Your task to perform on an android device: Open location settings Image 0: 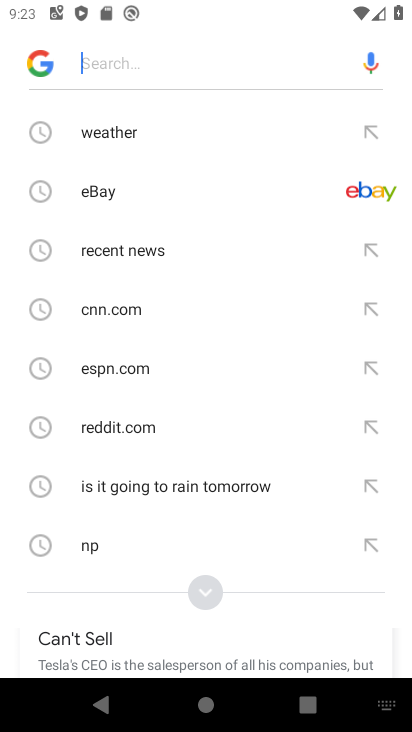
Step 0: press home button
Your task to perform on an android device: Open location settings Image 1: 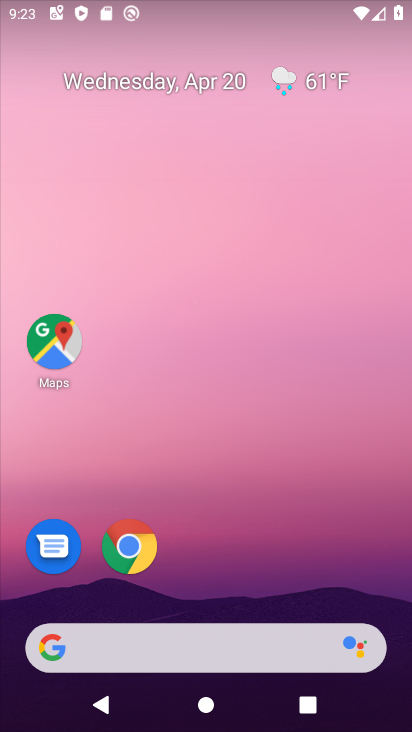
Step 1: drag from (206, 624) to (168, 366)
Your task to perform on an android device: Open location settings Image 2: 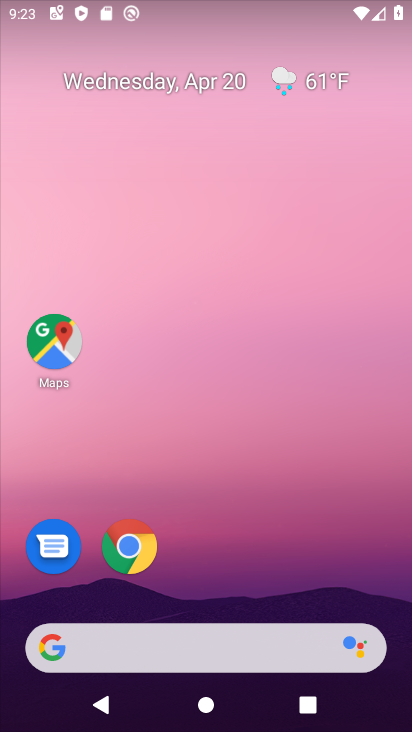
Step 2: drag from (196, 593) to (198, 240)
Your task to perform on an android device: Open location settings Image 3: 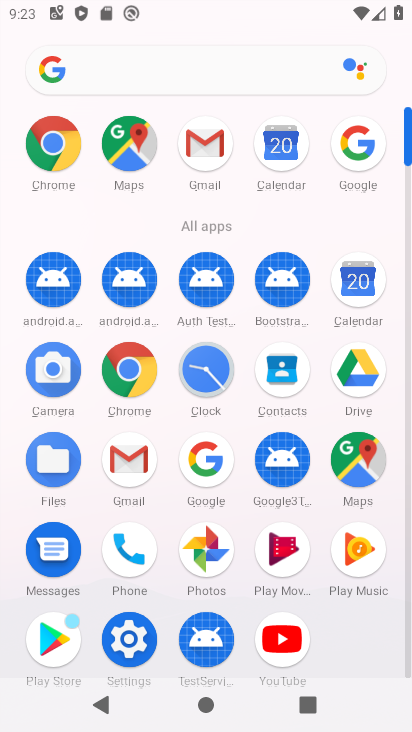
Step 3: click (119, 644)
Your task to perform on an android device: Open location settings Image 4: 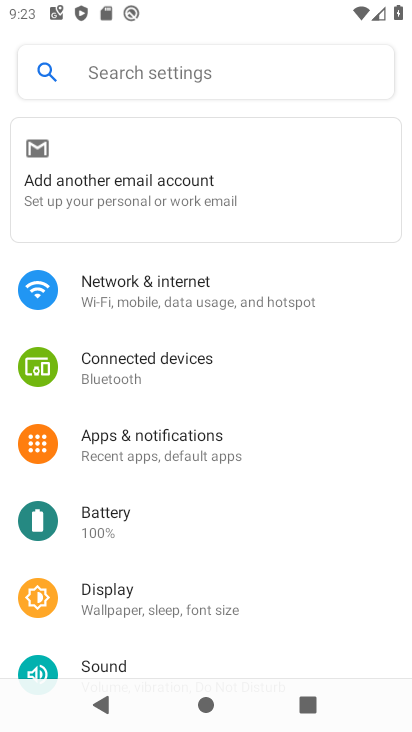
Step 4: drag from (161, 645) to (159, 345)
Your task to perform on an android device: Open location settings Image 5: 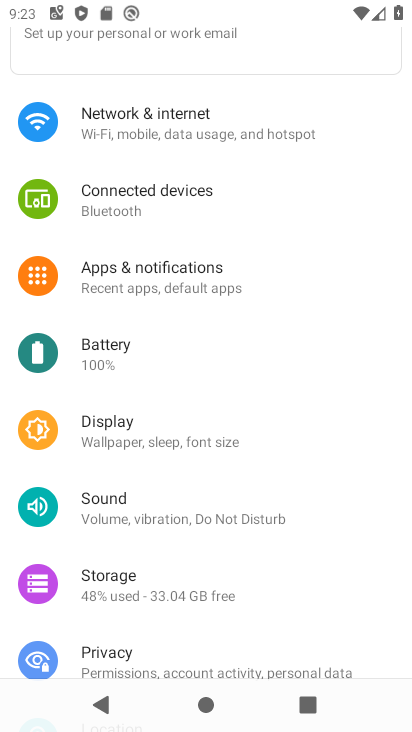
Step 5: drag from (125, 662) to (134, 317)
Your task to perform on an android device: Open location settings Image 6: 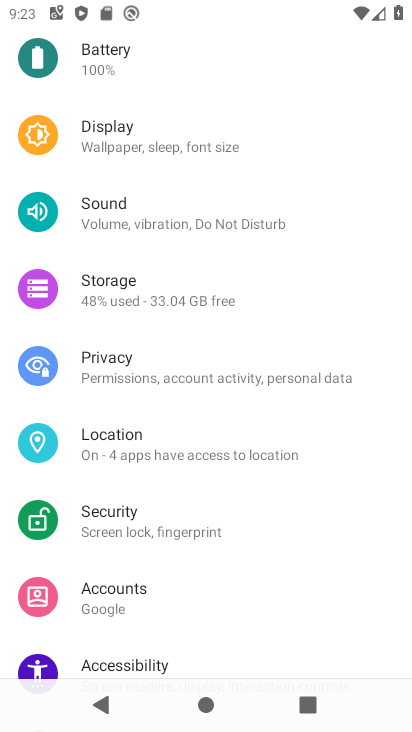
Step 6: click (133, 447)
Your task to perform on an android device: Open location settings Image 7: 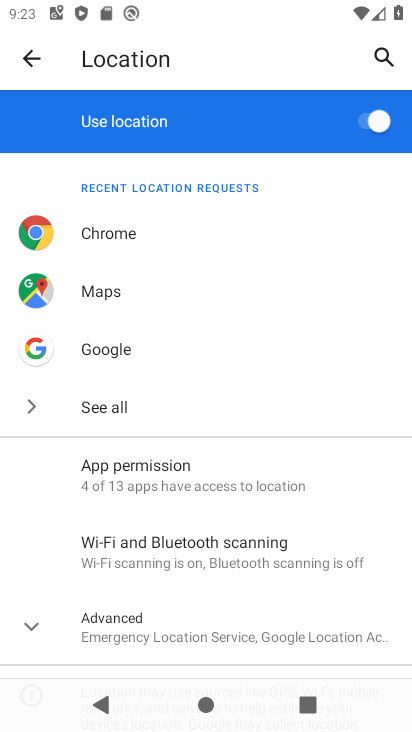
Step 7: click (126, 630)
Your task to perform on an android device: Open location settings Image 8: 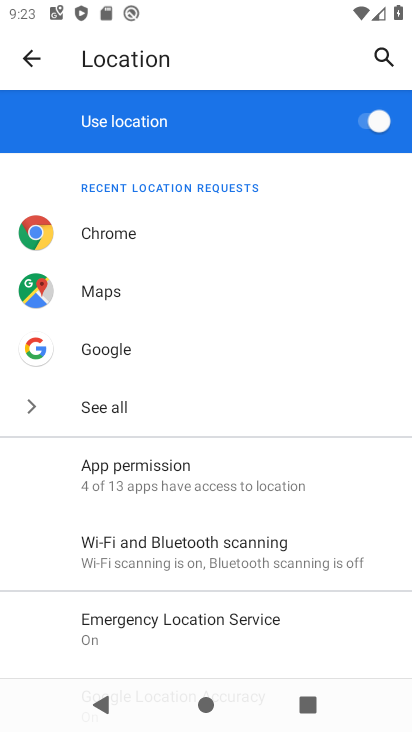
Step 8: task complete